Your task to perform on an android device: Open display settings Image 0: 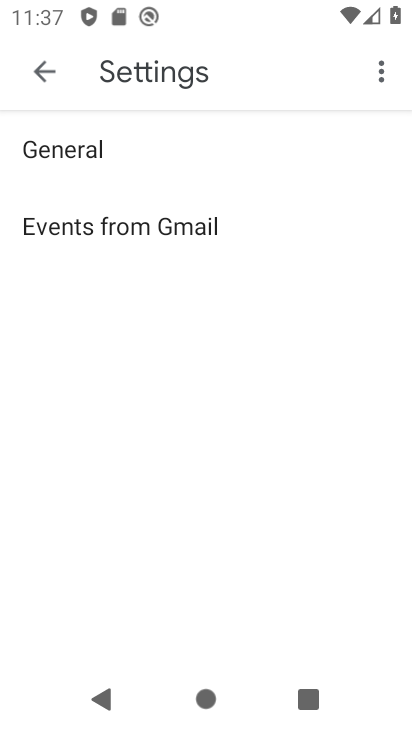
Step 0: press home button
Your task to perform on an android device: Open display settings Image 1: 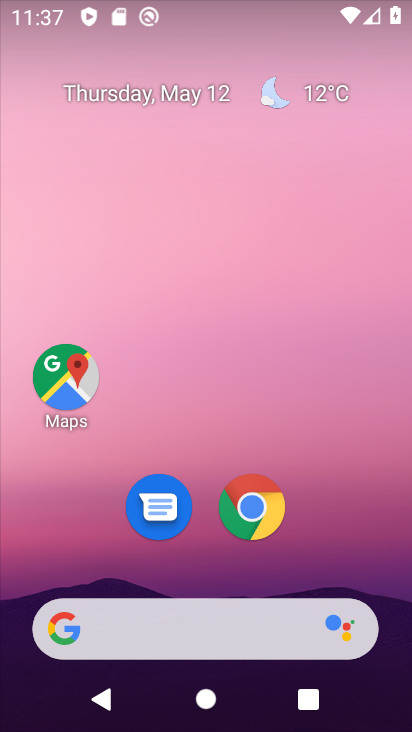
Step 1: drag from (304, 538) to (327, 155)
Your task to perform on an android device: Open display settings Image 2: 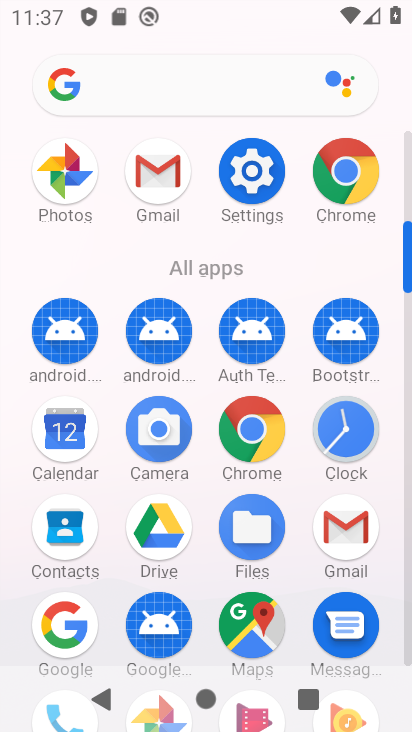
Step 2: click (251, 189)
Your task to perform on an android device: Open display settings Image 3: 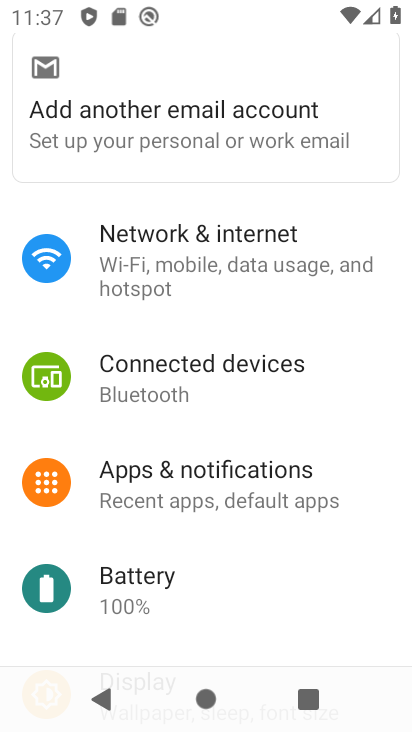
Step 3: drag from (207, 543) to (198, 289)
Your task to perform on an android device: Open display settings Image 4: 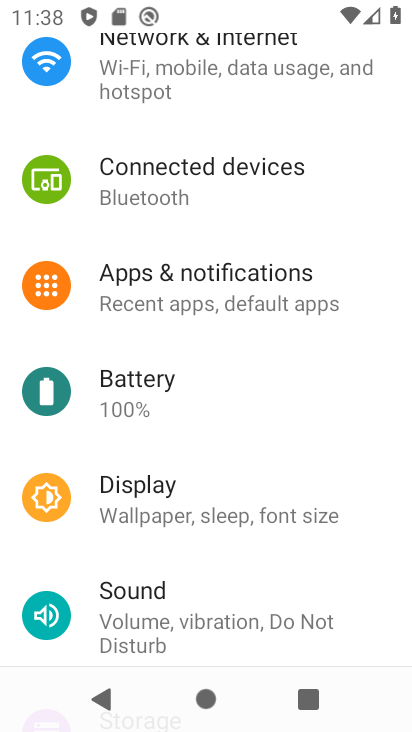
Step 4: click (203, 522)
Your task to perform on an android device: Open display settings Image 5: 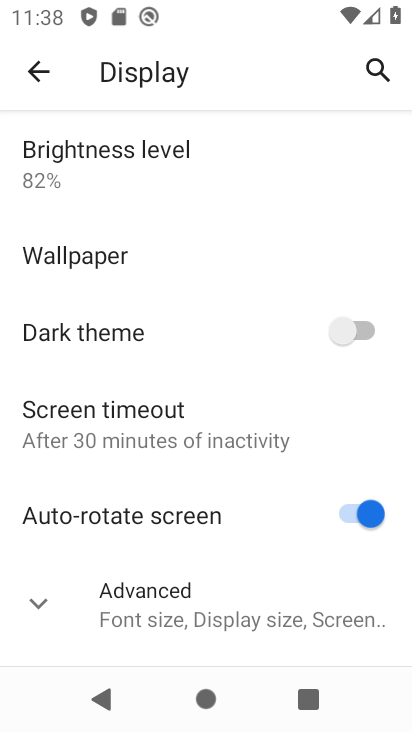
Step 5: task complete